Your task to perform on an android device: View the shopping cart on ebay.com. Search for logitech g903 on ebay.com, select the first entry, and add it to the cart. Image 0: 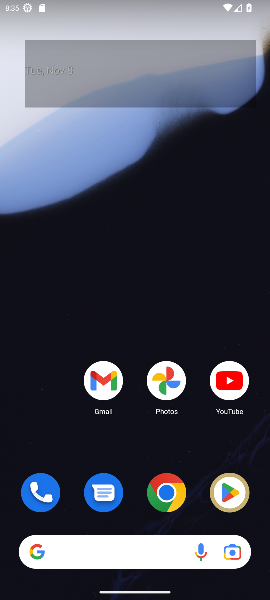
Step 0: click (155, 545)
Your task to perform on an android device: View the shopping cart on ebay.com. Search for logitech g903 on ebay.com, select the first entry, and add it to the cart. Image 1: 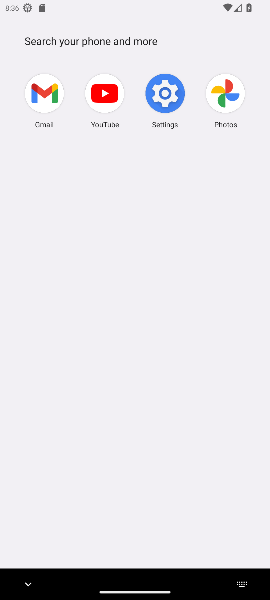
Step 1: press home button
Your task to perform on an android device: View the shopping cart on ebay.com. Search for logitech g903 on ebay.com, select the first entry, and add it to the cart. Image 2: 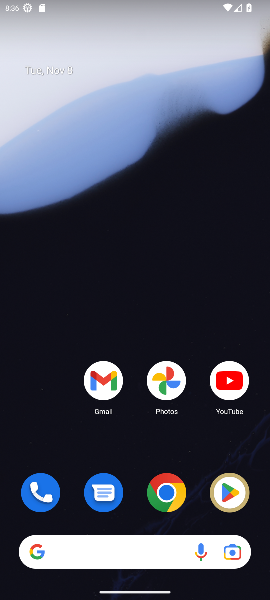
Step 2: click (169, 490)
Your task to perform on an android device: View the shopping cart on ebay.com. Search for logitech g903 on ebay.com, select the first entry, and add it to the cart. Image 3: 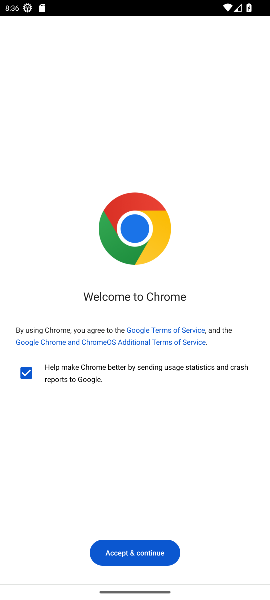
Step 3: click (107, 547)
Your task to perform on an android device: View the shopping cart on ebay.com. Search for logitech g903 on ebay.com, select the first entry, and add it to the cart. Image 4: 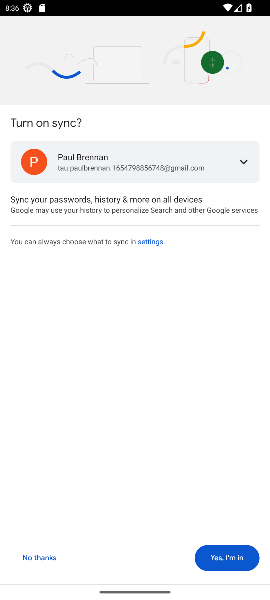
Step 4: click (228, 563)
Your task to perform on an android device: View the shopping cart on ebay.com. Search for logitech g903 on ebay.com, select the first entry, and add it to the cart. Image 5: 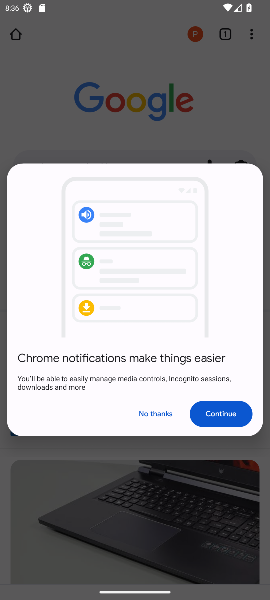
Step 5: click (219, 424)
Your task to perform on an android device: View the shopping cart on ebay.com. Search for logitech g903 on ebay.com, select the first entry, and add it to the cart. Image 6: 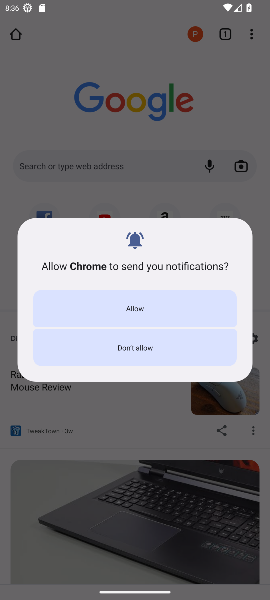
Step 6: click (138, 313)
Your task to perform on an android device: View the shopping cart on ebay.com. Search for logitech g903 on ebay.com, select the first entry, and add it to the cart. Image 7: 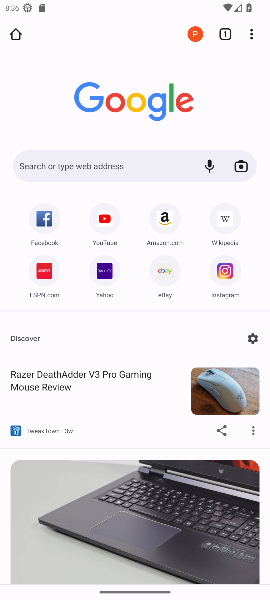
Step 7: click (121, 167)
Your task to perform on an android device: View the shopping cart on ebay.com. Search for logitech g903 on ebay.com, select the first entry, and add it to the cart. Image 8: 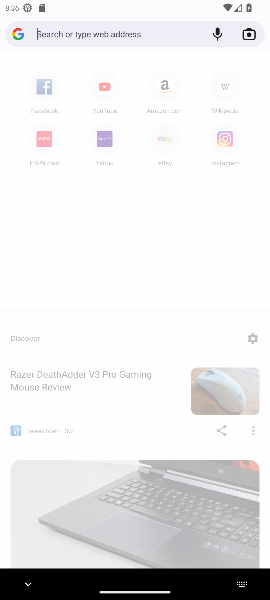
Step 8: type "ebay.com"
Your task to perform on an android device: View the shopping cart on ebay.com. Search for logitech g903 on ebay.com, select the first entry, and add it to the cart. Image 9: 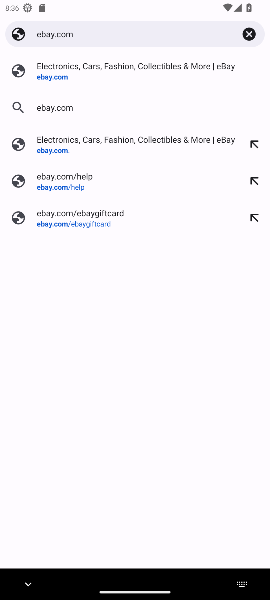
Step 9: click (58, 80)
Your task to perform on an android device: View the shopping cart on ebay.com. Search for logitech g903 on ebay.com, select the first entry, and add it to the cart. Image 10: 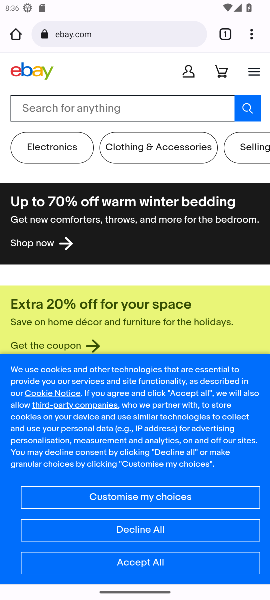
Step 10: click (93, 110)
Your task to perform on an android device: View the shopping cart on ebay.com. Search for logitech g903 on ebay.com, select the first entry, and add it to the cart. Image 11: 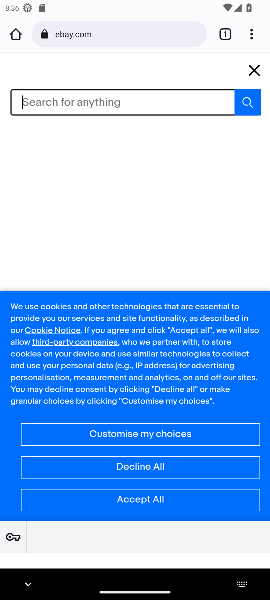
Step 11: type "logitech g903"
Your task to perform on an android device: View the shopping cart on ebay.com. Search for logitech g903 on ebay.com, select the first entry, and add it to the cart. Image 12: 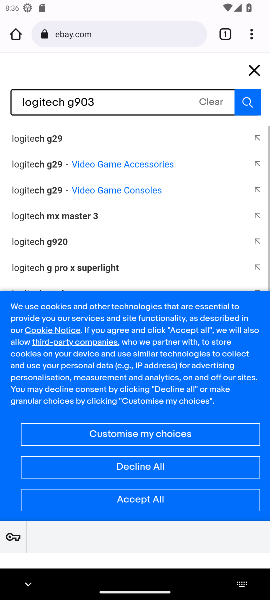
Step 12: click (249, 107)
Your task to perform on an android device: View the shopping cart on ebay.com. Search for logitech g903 on ebay.com, select the first entry, and add it to the cart. Image 13: 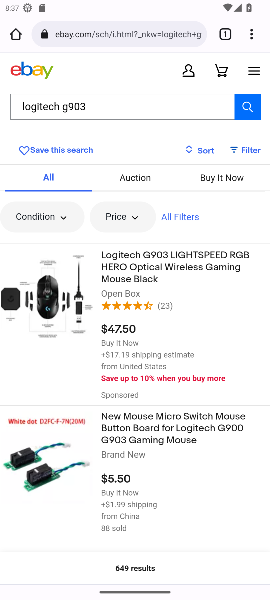
Step 13: click (115, 257)
Your task to perform on an android device: View the shopping cart on ebay.com. Search for logitech g903 on ebay.com, select the first entry, and add it to the cart. Image 14: 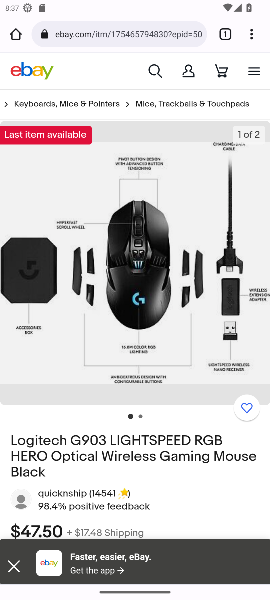
Step 14: drag from (218, 498) to (208, 332)
Your task to perform on an android device: View the shopping cart on ebay.com. Search for logitech g903 on ebay.com, select the first entry, and add it to the cart. Image 15: 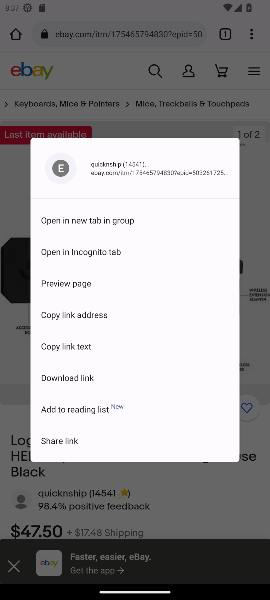
Step 15: click (190, 477)
Your task to perform on an android device: View the shopping cart on ebay.com. Search for logitech g903 on ebay.com, select the first entry, and add it to the cart. Image 16: 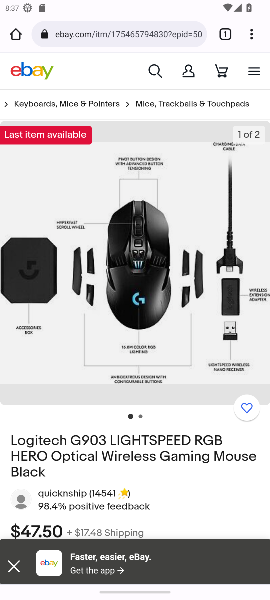
Step 16: drag from (190, 477) to (159, 139)
Your task to perform on an android device: View the shopping cart on ebay.com. Search for logitech g903 on ebay.com, select the first entry, and add it to the cart. Image 17: 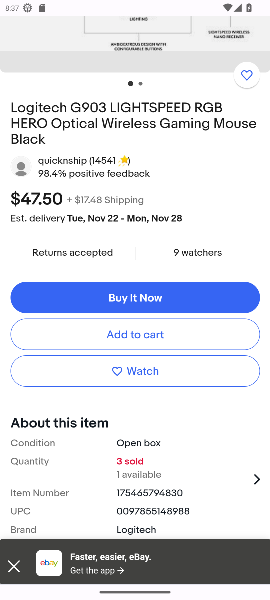
Step 17: click (170, 340)
Your task to perform on an android device: View the shopping cart on ebay.com. Search for logitech g903 on ebay.com, select the first entry, and add it to the cart. Image 18: 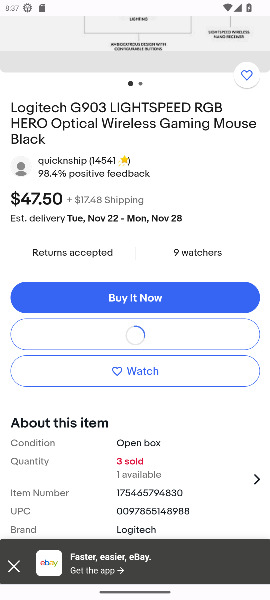
Step 18: task complete